Your task to perform on an android device: open chrome privacy settings Image 0: 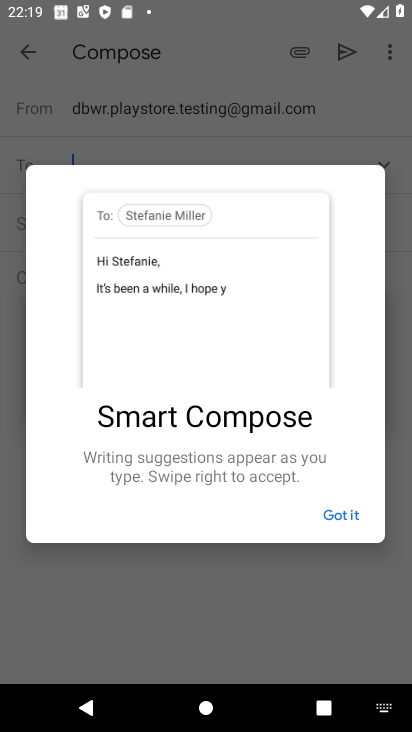
Step 0: press home button
Your task to perform on an android device: open chrome privacy settings Image 1: 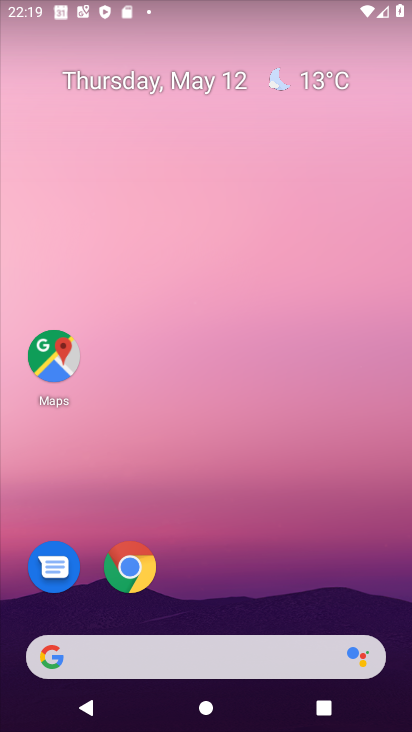
Step 1: drag from (212, 606) to (228, 87)
Your task to perform on an android device: open chrome privacy settings Image 2: 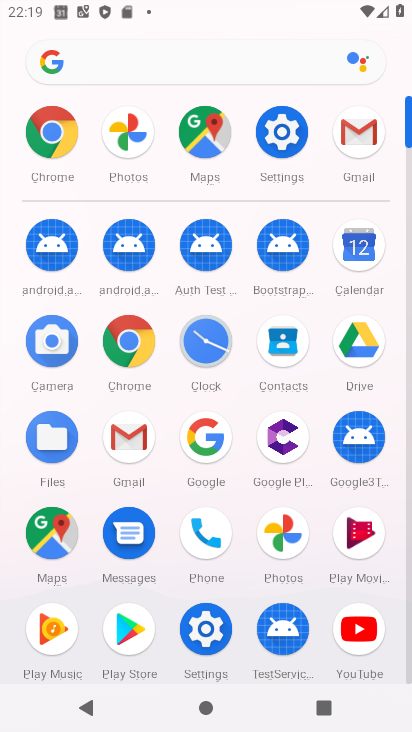
Step 2: click (49, 129)
Your task to perform on an android device: open chrome privacy settings Image 3: 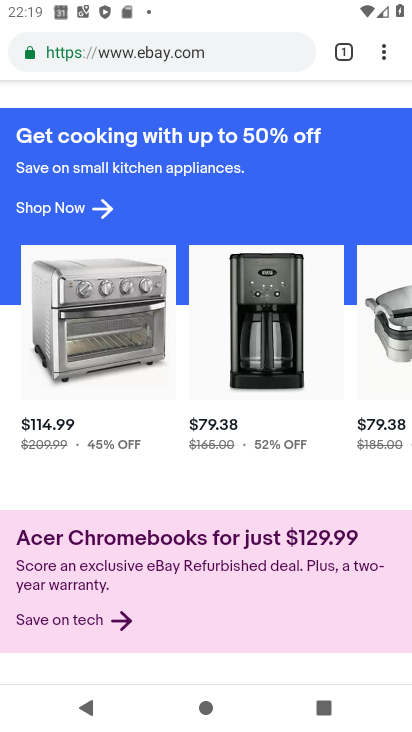
Step 3: click (386, 50)
Your task to perform on an android device: open chrome privacy settings Image 4: 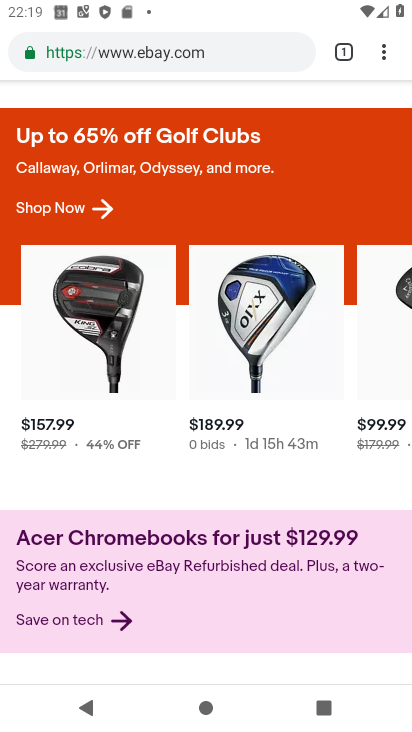
Step 4: click (387, 43)
Your task to perform on an android device: open chrome privacy settings Image 5: 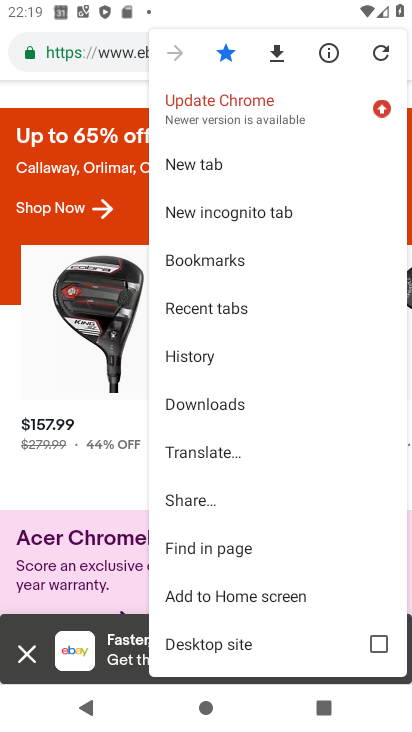
Step 5: drag from (238, 573) to (228, 201)
Your task to perform on an android device: open chrome privacy settings Image 6: 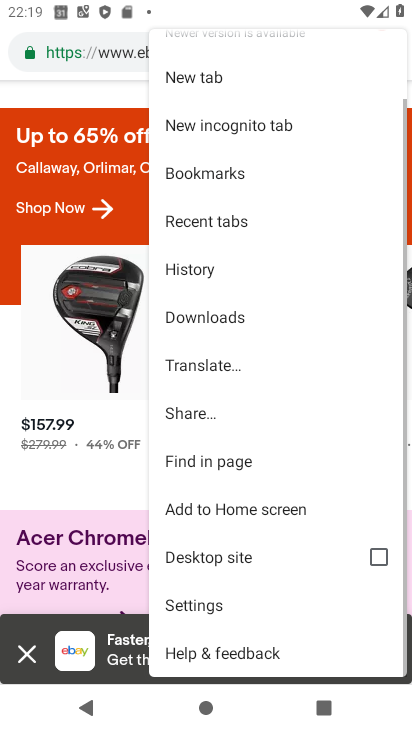
Step 6: click (237, 592)
Your task to perform on an android device: open chrome privacy settings Image 7: 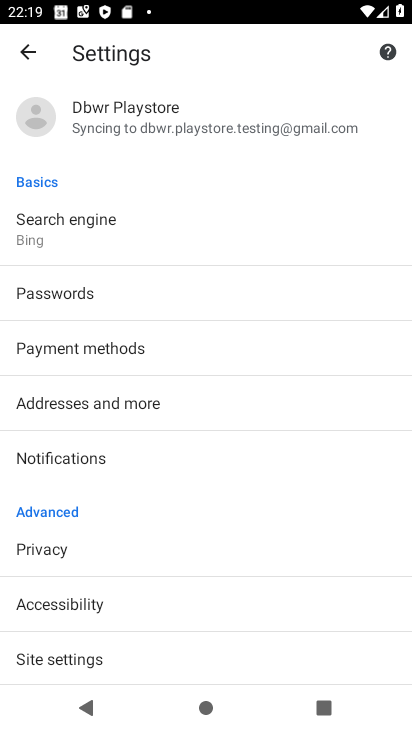
Step 7: click (88, 550)
Your task to perform on an android device: open chrome privacy settings Image 8: 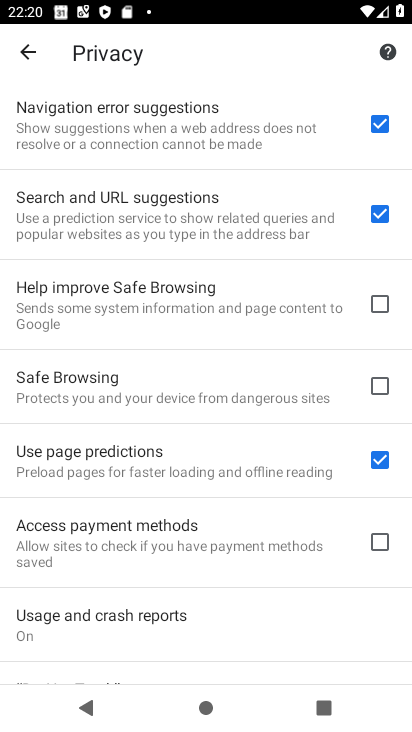
Step 8: task complete